Your task to perform on an android device: check out phone information Image 0: 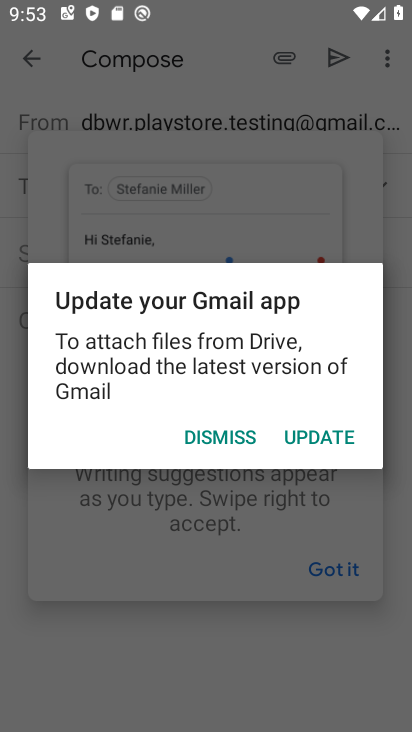
Step 0: press back button
Your task to perform on an android device: check out phone information Image 1: 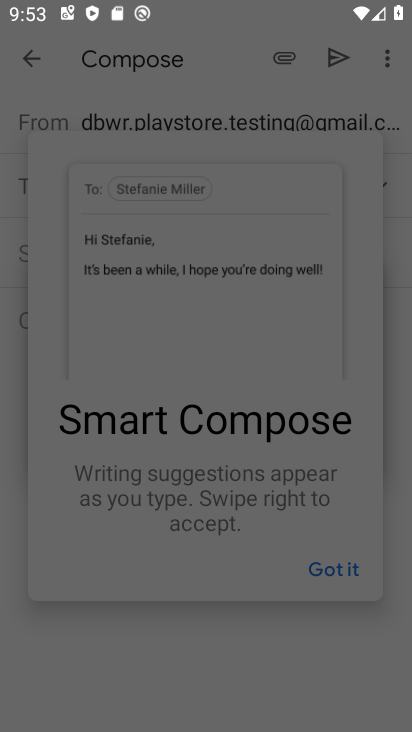
Step 1: press back button
Your task to perform on an android device: check out phone information Image 2: 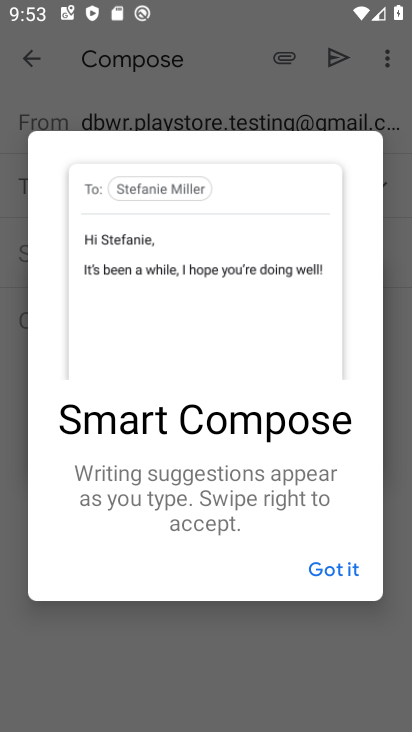
Step 2: press home button
Your task to perform on an android device: check out phone information Image 3: 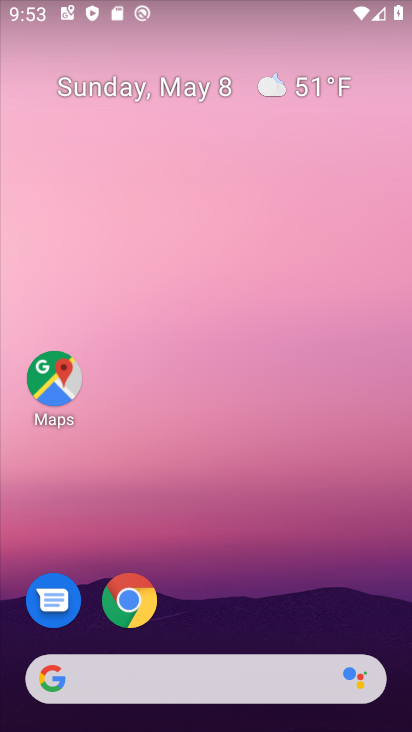
Step 3: drag from (257, 606) to (265, 27)
Your task to perform on an android device: check out phone information Image 4: 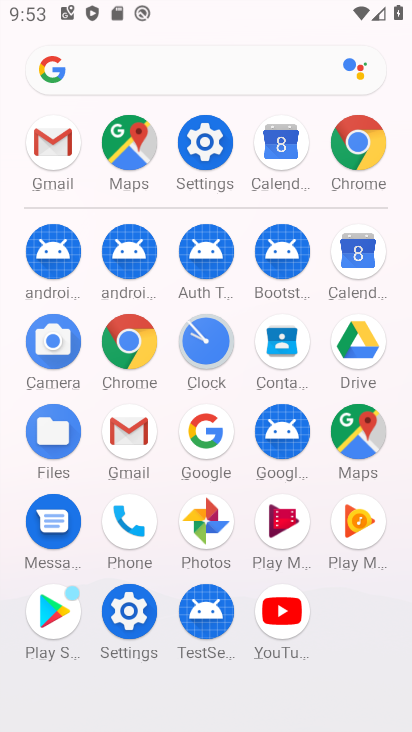
Step 4: click (207, 138)
Your task to perform on an android device: check out phone information Image 5: 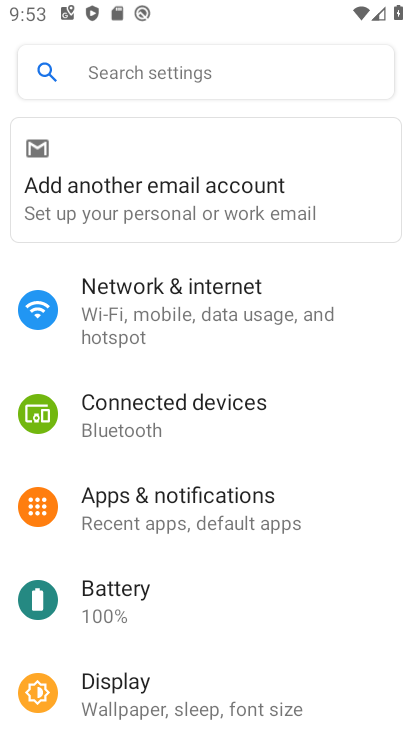
Step 5: drag from (303, 658) to (297, 129)
Your task to perform on an android device: check out phone information Image 6: 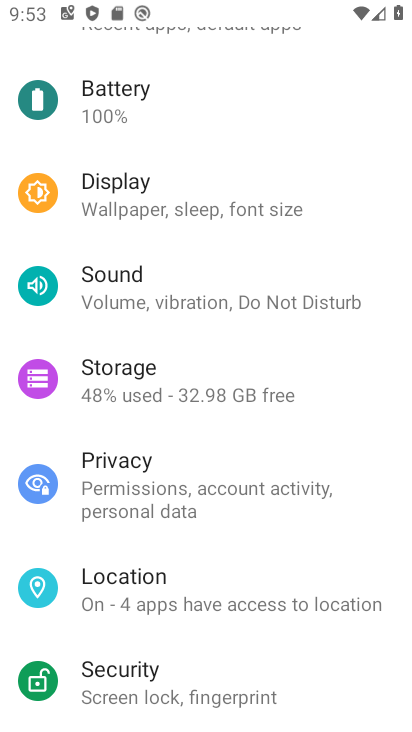
Step 6: drag from (294, 600) to (298, 138)
Your task to perform on an android device: check out phone information Image 7: 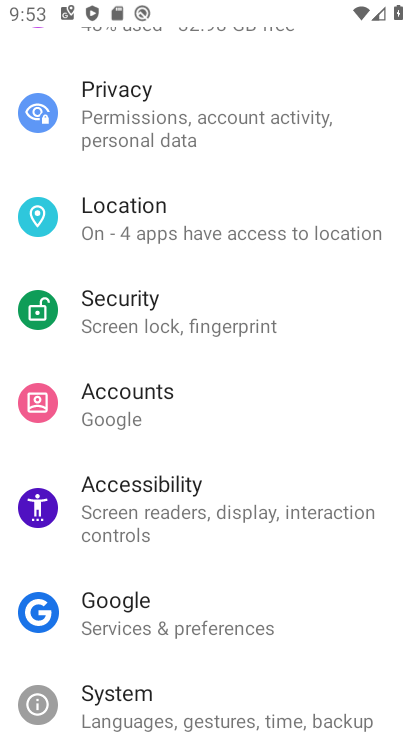
Step 7: drag from (225, 653) to (243, 217)
Your task to perform on an android device: check out phone information Image 8: 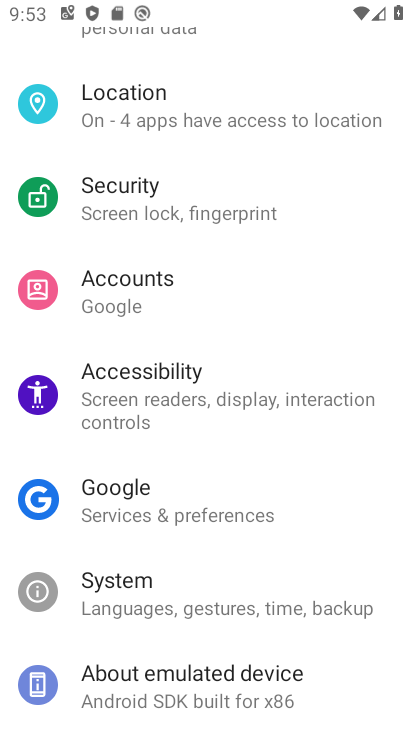
Step 8: click (182, 695)
Your task to perform on an android device: check out phone information Image 9: 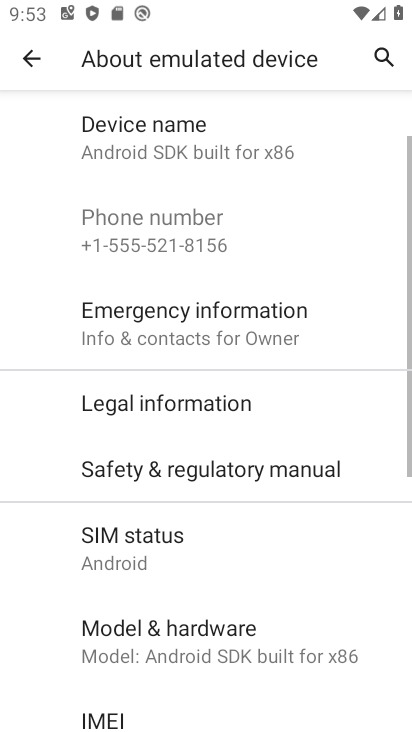
Step 9: task complete